Your task to perform on an android device: Is it going to rain tomorrow? Image 0: 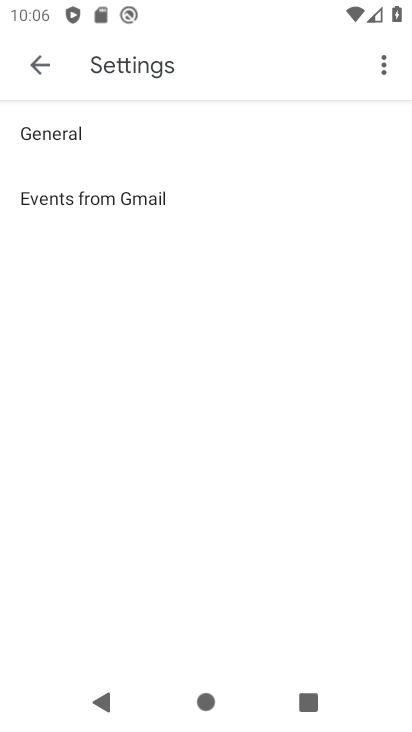
Step 0: press home button
Your task to perform on an android device: Is it going to rain tomorrow? Image 1: 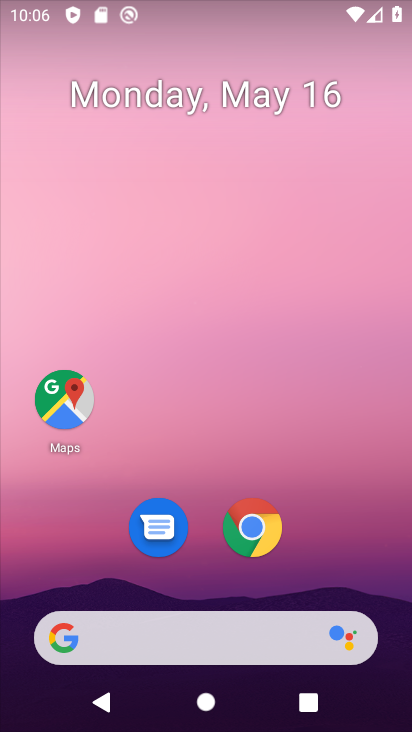
Step 1: drag from (317, 565) to (260, 76)
Your task to perform on an android device: Is it going to rain tomorrow? Image 2: 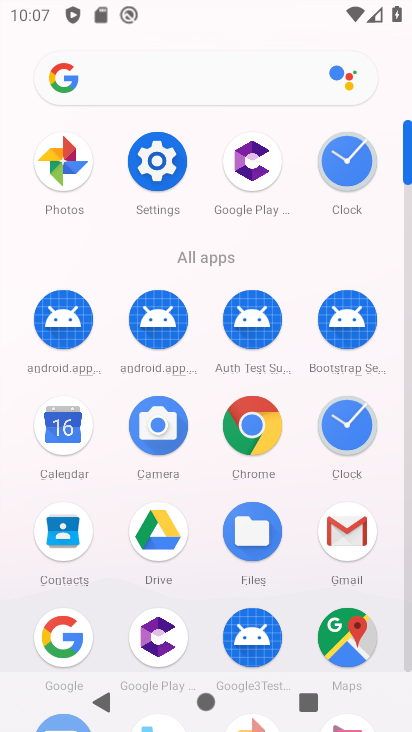
Step 2: click (401, 657)
Your task to perform on an android device: Is it going to rain tomorrow? Image 3: 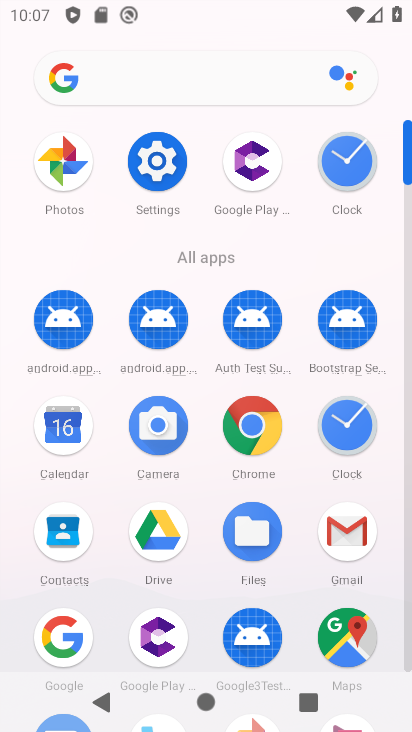
Step 3: click (401, 657)
Your task to perform on an android device: Is it going to rain tomorrow? Image 4: 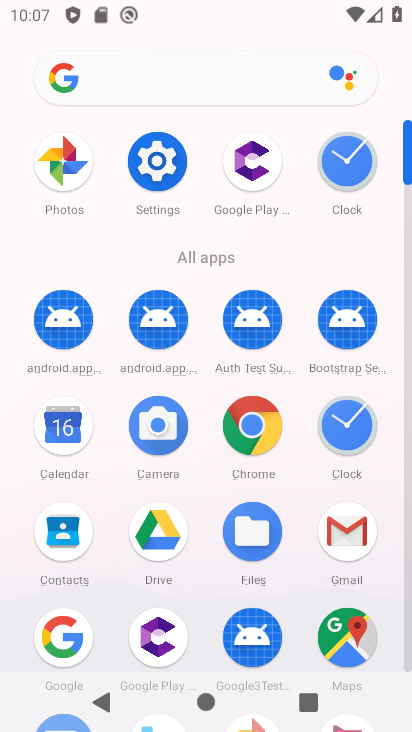
Step 4: click (408, 662)
Your task to perform on an android device: Is it going to rain tomorrow? Image 5: 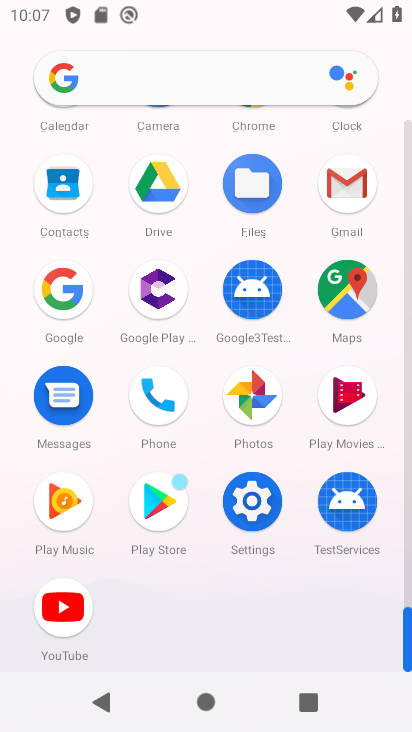
Step 5: click (408, 443)
Your task to perform on an android device: Is it going to rain tomorrow? Image 6: 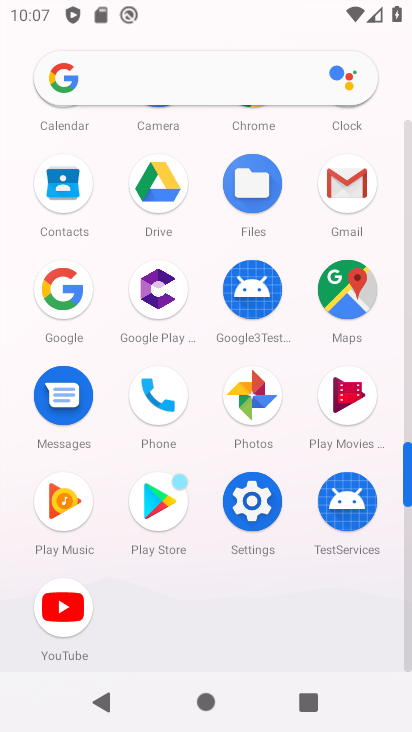
Step 6: drag from (408, 443) to (411, 141)
Your task to perform on an android device: Is it going to rain tomorrow? Image 7: 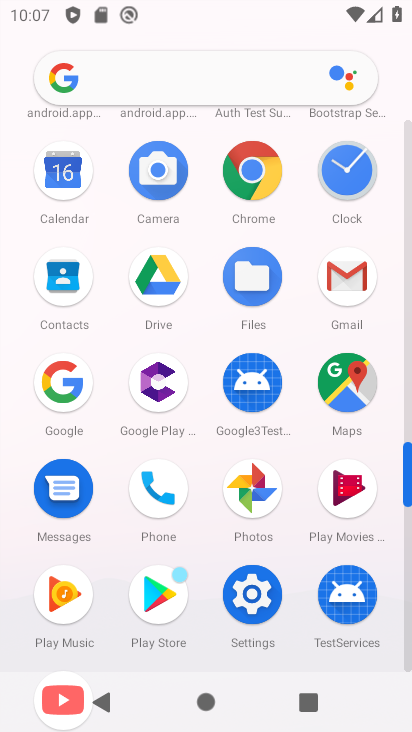
Step 7: click (403, 128)
Your task to perform on an android device: Is it going to rain tomorrow? Image 8: 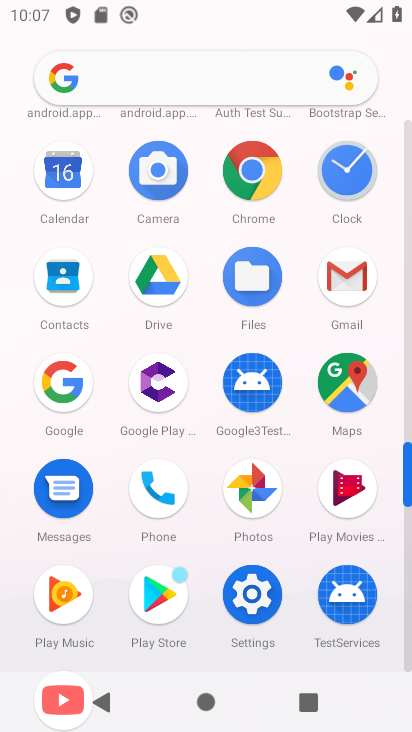
Step 8: click (403, 122)
Your task to perform on an android device: Is it going to rain tomorrow? Image 9: 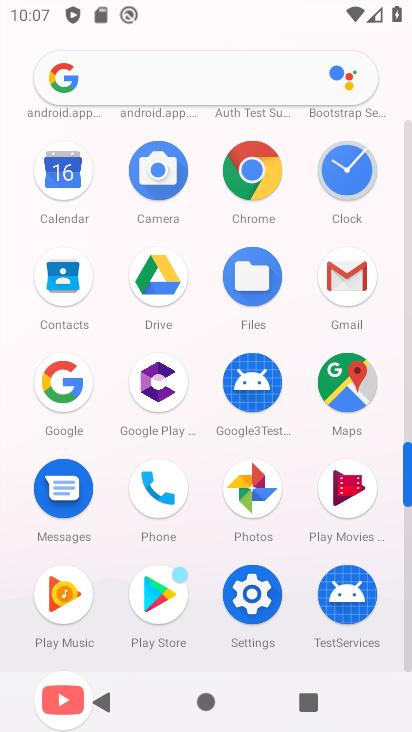
Step 9: click (407, 132)
Your task to perform on an android device: Is it going to rain tomorrow? Image 10: 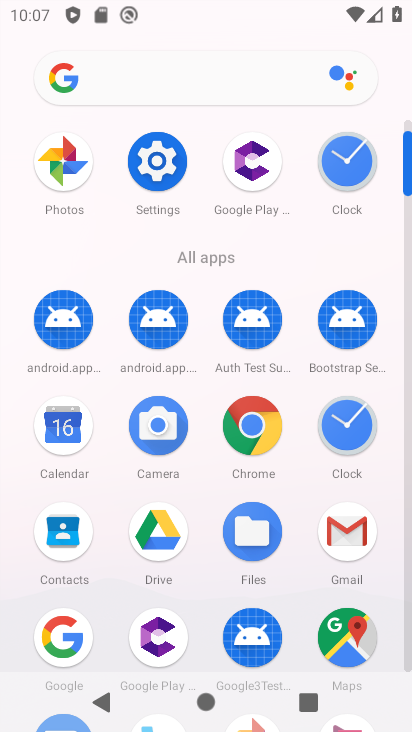
Step 10: click (269, 447)
Your task to perform on an android device: Is it going to rain tomorrow? Image 11: 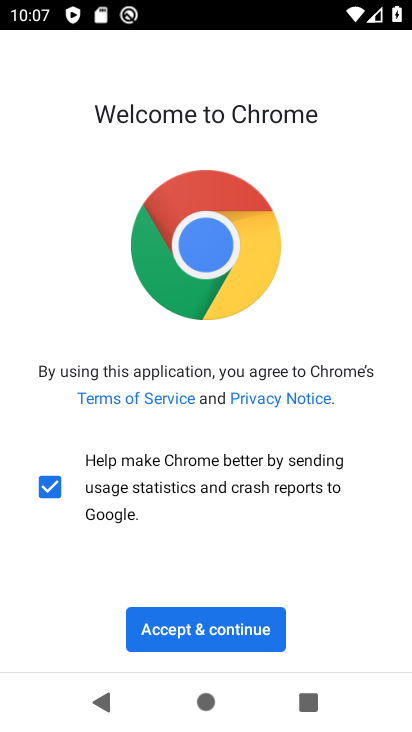
Step 11: click (217, 633)
Your task to perform on an android device: Is it going to rain tomorrow? Image 12: 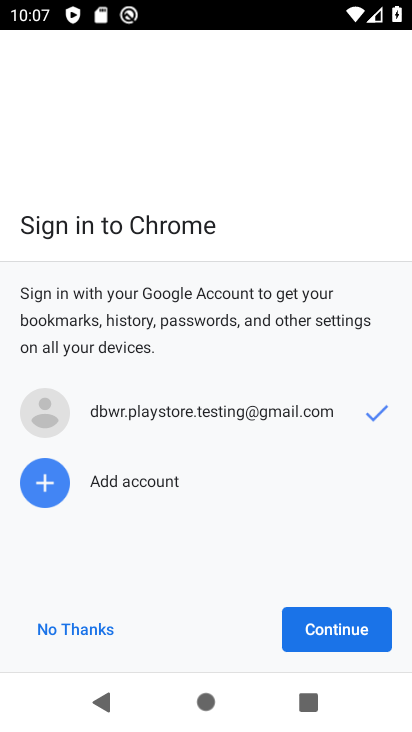
Step 12: click (345, 627)
Your task to perform on an android device: Is it going to rain tomorrow? Image 13: 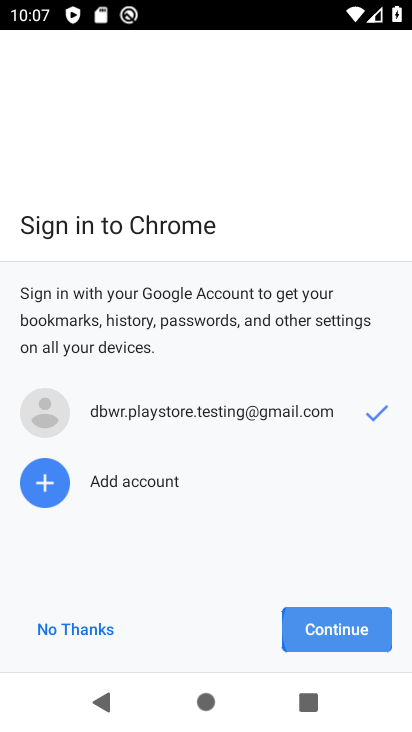
Step 13: click (345, 627)
Your task to perform on an android device: Is it going to rain tomorrow? Image 14: 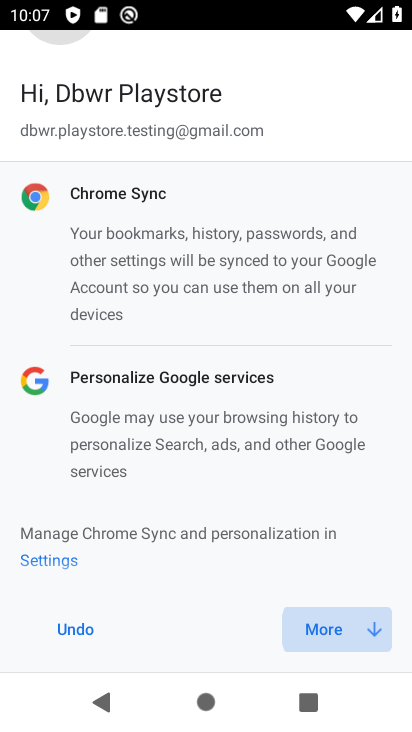
Step 14: click (345, 627)
Your task to perform on an android device: Is it going to rain tomorrow? Image 15: 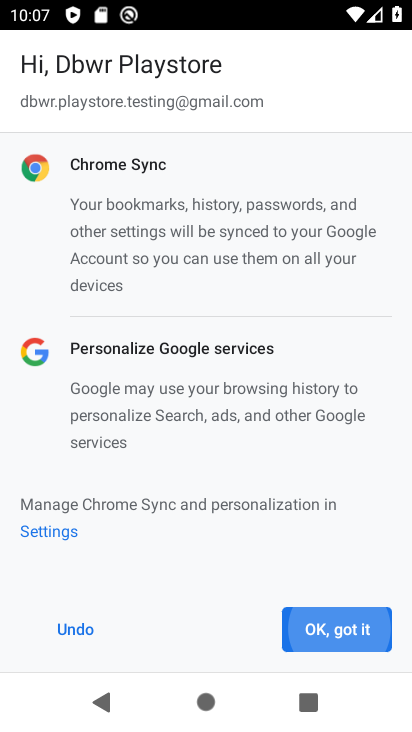
Step 15: click (345, 627)
Your task to perform on an android device: Is it going to rain tomorrow? Image 16: 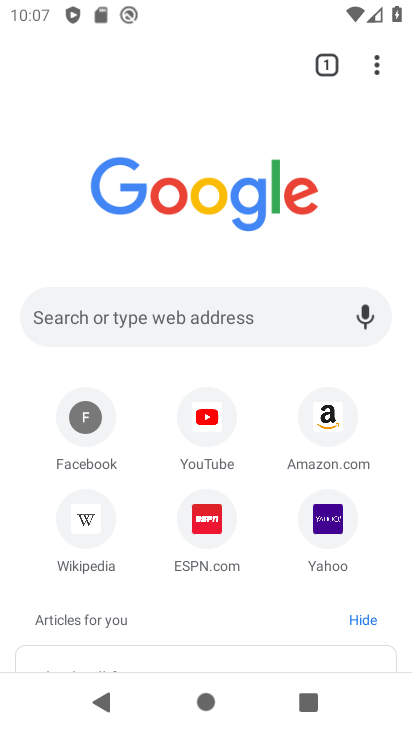
Step 16: click (162, 309)
Your task to perform on an android device: Is it going to rain tomorrow? Image 17: 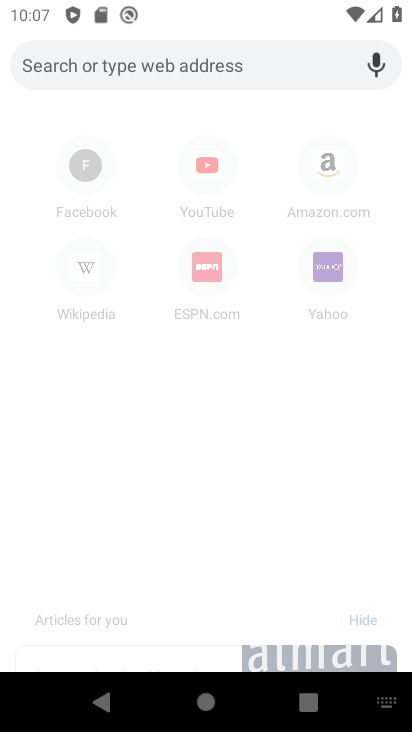
Step 17: type "Is it going to rain tomorrow?"
Your task to perform on an android device: Is it going to rain tomorrow? Image 18: 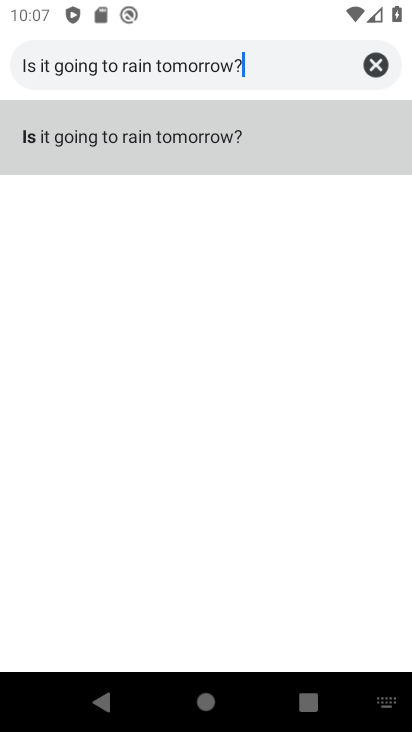
Step 18: type ""
Your task to perform on an android device: Is it going to rain tomorrow? Image 19: 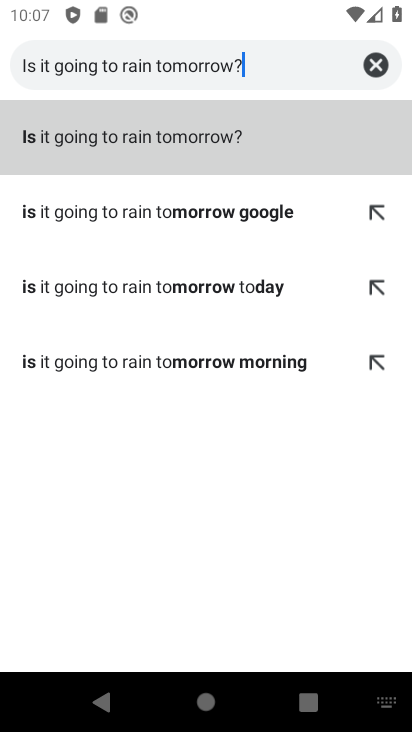
Step 19: click (73, 123)
Your task to perform on an android device: Is it going to rain tomorrow? Image 20: 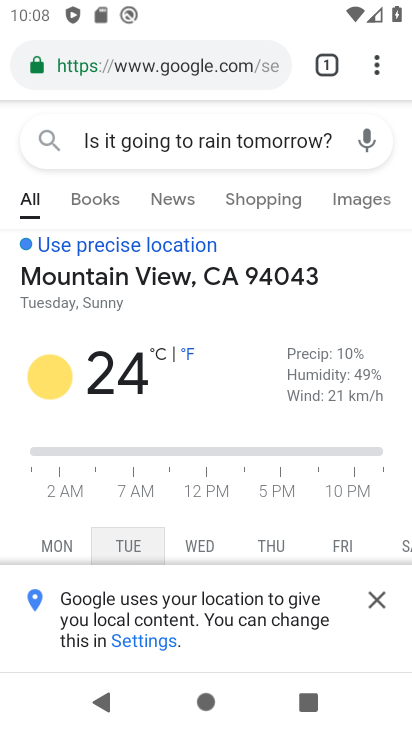
Step 20: task complete